Your task to perform on an android device: allow notifications from all sites in the chrome app Image 0: 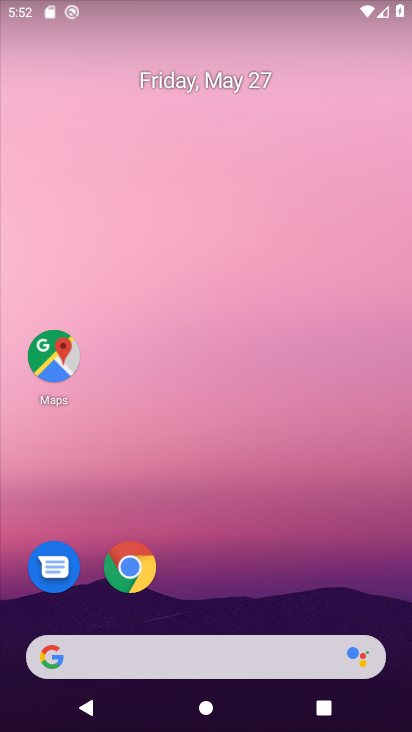
Step 0: click (130, 566)
Your task to perform on an android device: allow notifications from all sites in the chrome app Image 1: 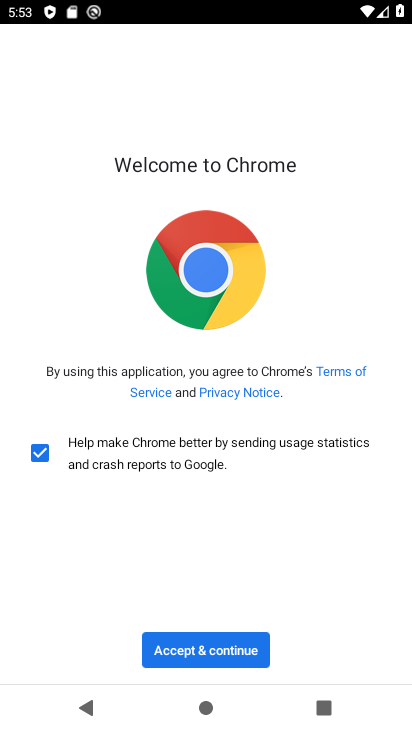
Step 1: click (233, 647)
Your task to perform on an android device: allow notifications from all sites in the chrome app Image 2: 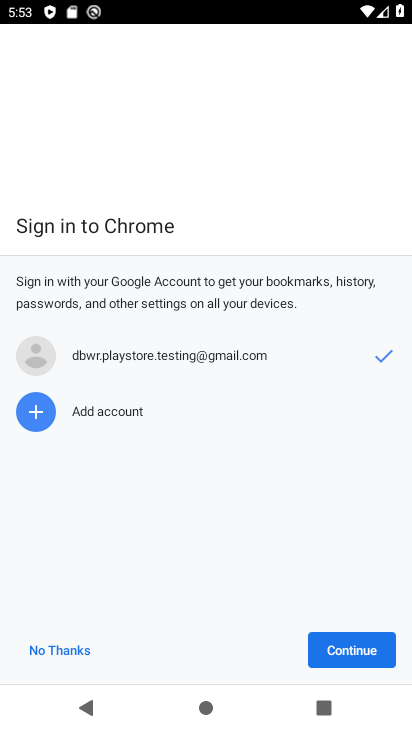
Step 2: click (347, 662)
Your task to perform on an android device: allow notifications from all sites in the chrome app Image 3: 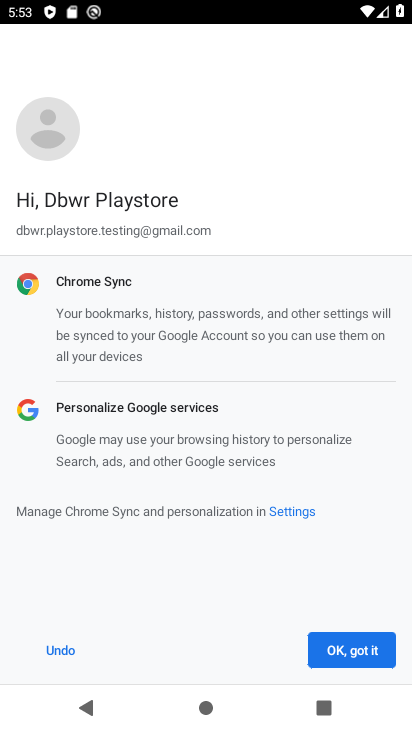
Step 3: click (345, 662)
Your task to perform on an android device: allow notifications from all sites in the chrome app Image 4: 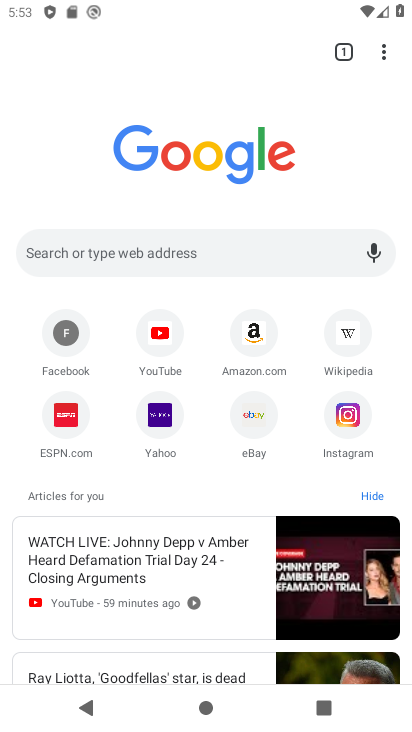
Step 4: click (379, 54)
Your task to perform on an android device: allow notifications from all sites in the chrome app Image 5: 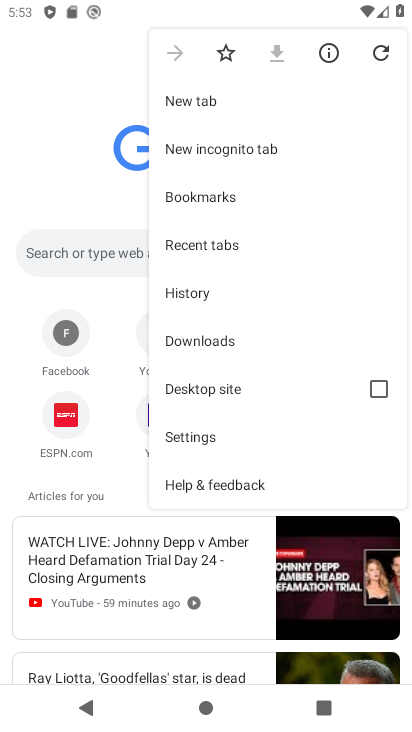
Step 5: click (184, 443)
Your task to perform on an android device: allow notifications from all sites in the chrome app Image 6: 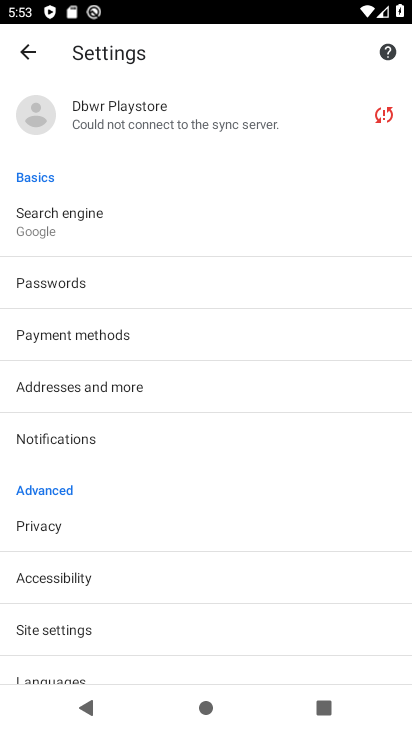
Step 6: click (75, 442)
Your task to perform on an android device: allow notifications from all sites in the chrome app Image 7: 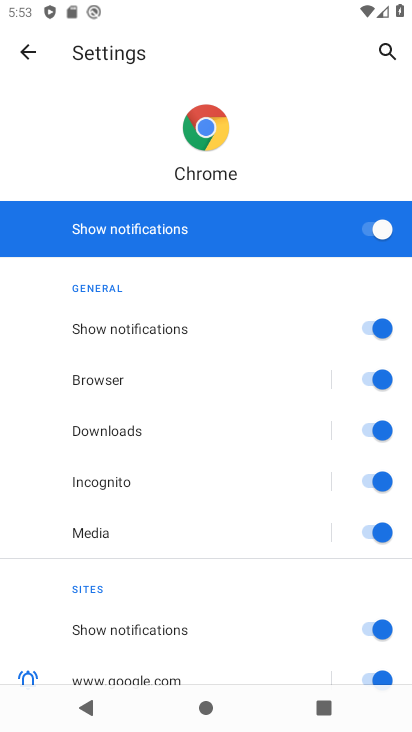
Step 7: click (365, 228)
Your task to perform on an android device: allow notifications from all sites in the chrome app Image 8: 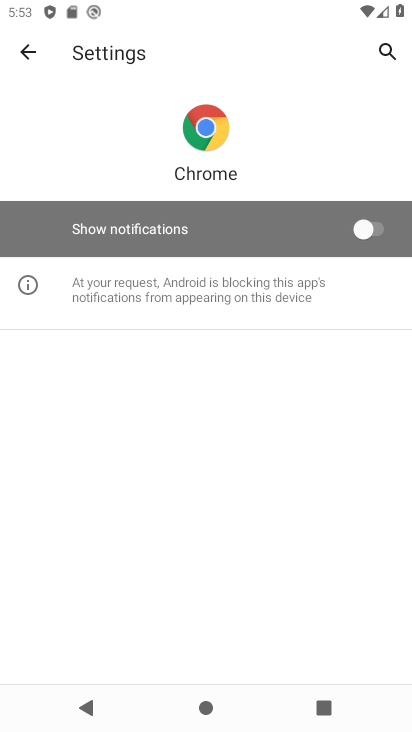
Step 8: task complete